Your task to perform on an android device: When is my next meeting? Image 0: 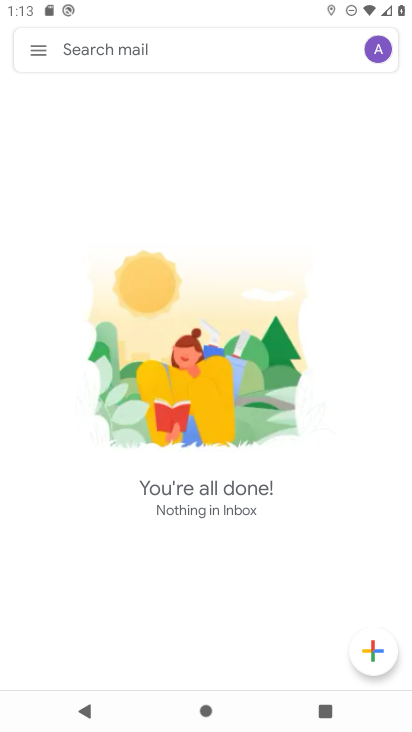
Step 0: press home button
Your task to perform on an android device: When is my next meeting? Image 1: 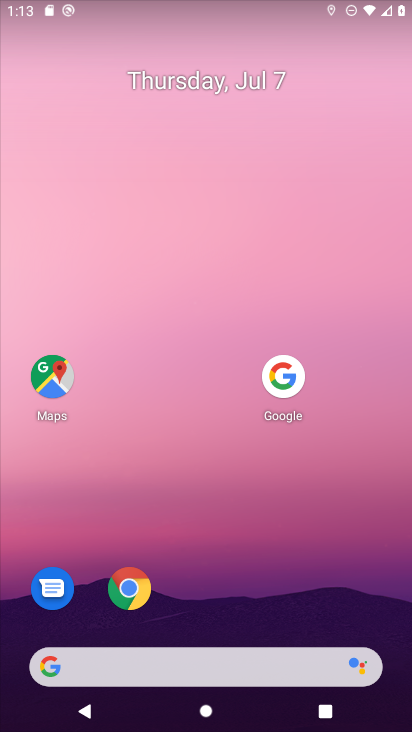
Step 1: drag from (189, 661) to (354, 155)
Your task to perform on an android device: When is my next meeting? Image 2: 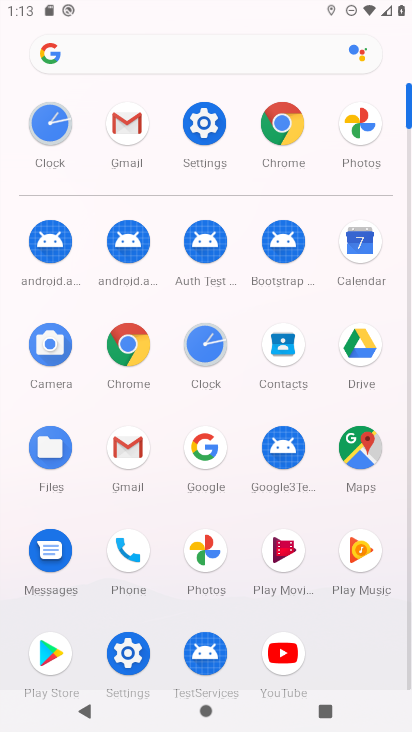
Step 2: click (374, 255)
Your task to perform on an android device: When is my next meeting? Image 3: 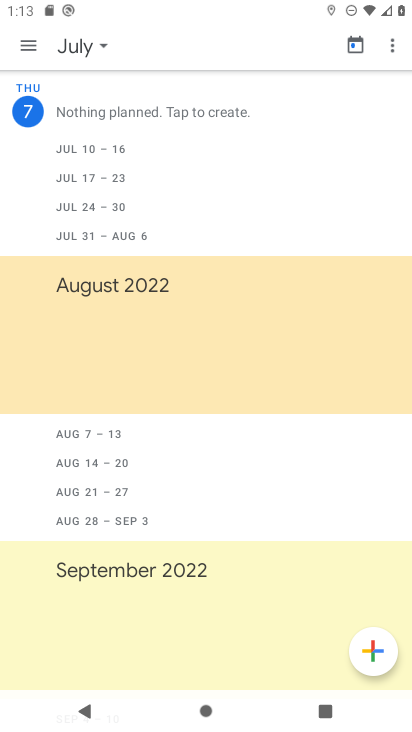
Step 3: click (71, 41)
Your task to perform on an android device: When is my next meeting? Image 4: 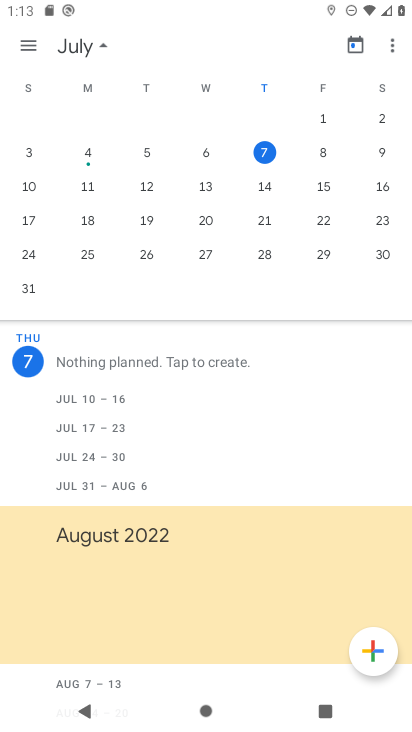
Step 4: click (27, 38)
Your task to perform on an android device: When is my next meeting? Image 5: 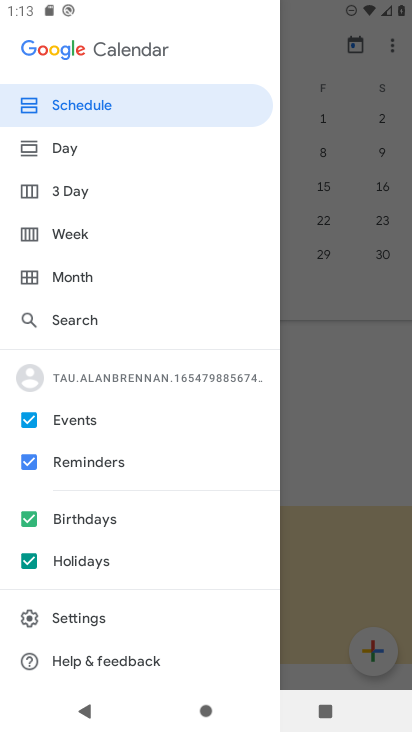
Step 5: click (66, 235)
Your task to perform on an android device: When is my next meeting? Image 6: 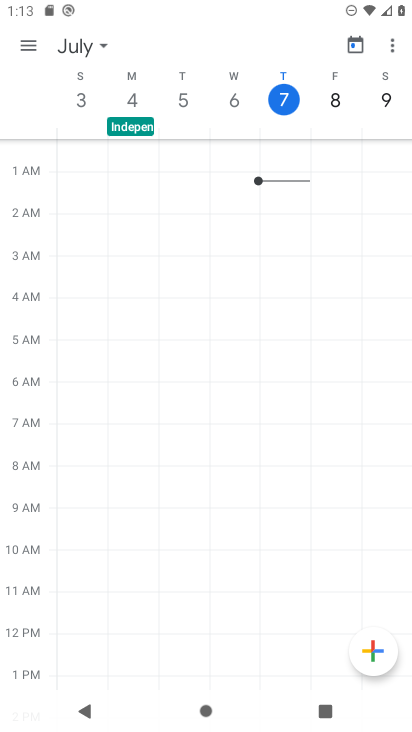
Step 6: click (26, 50)
Your task to perform on an android device: When is my next meeting? Image 7: 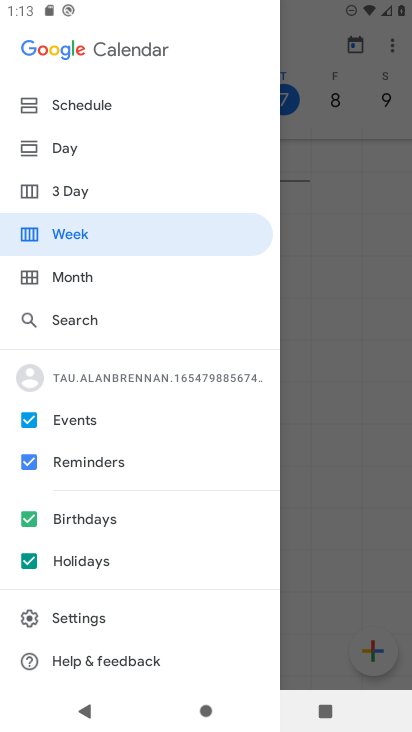
Step 7: click (103, 108)
Your task to perform on an android device: When is my next meeting? Image 8: 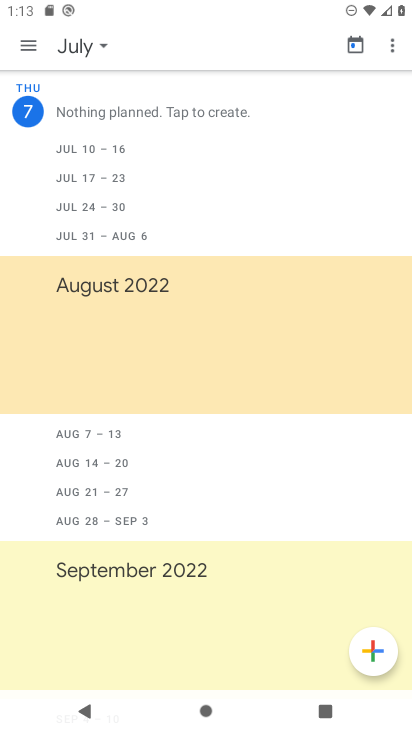
Step 8: task complete